Your task to perform on an android device: Open the web browser Image 0: 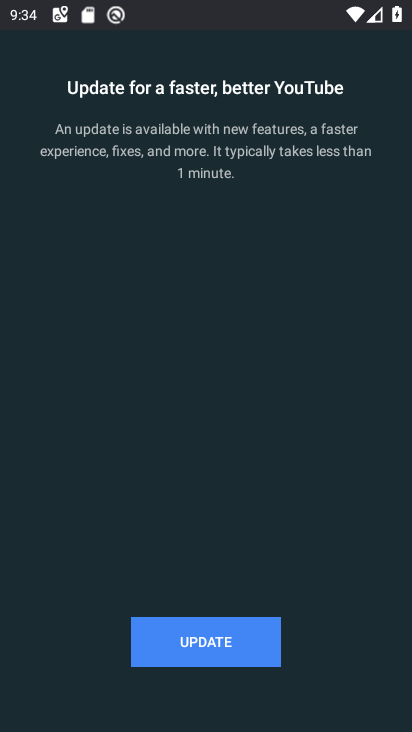
Step 0: press home button
Your task to perform on an android device: Open the web browser Image 1: 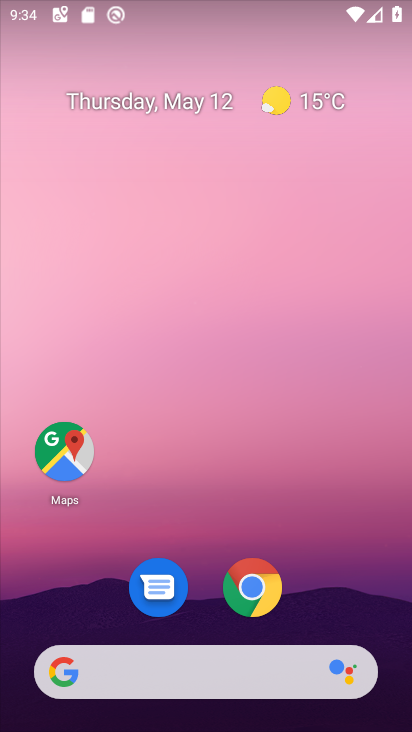
Step 1: drag from (382, 637) to (317, 128)
Your task to perform on an android device: Open the web browser Image 2: 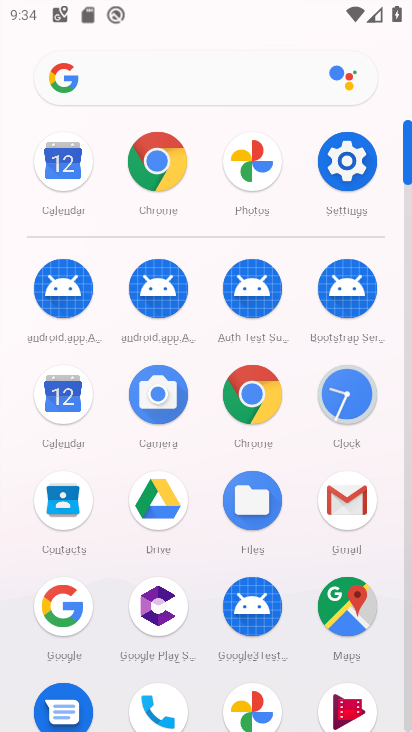
Step 2: click (155, 171)
Your task to perform on an android device: Open the web browser Image 3: 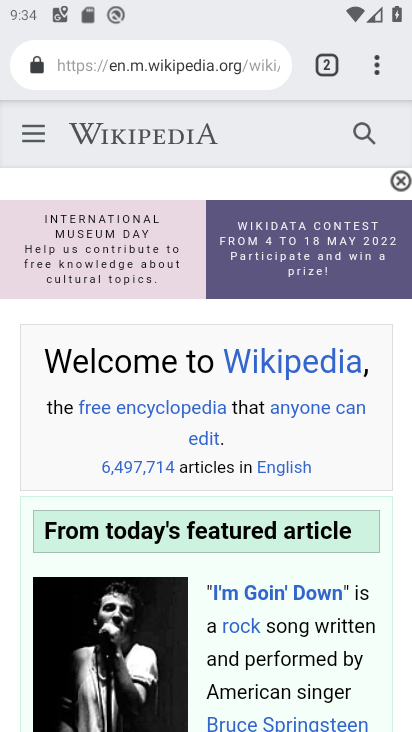
Step 3: task complete